Your task to perform on an android device: turn on the 24-hour format for clock Image 0: 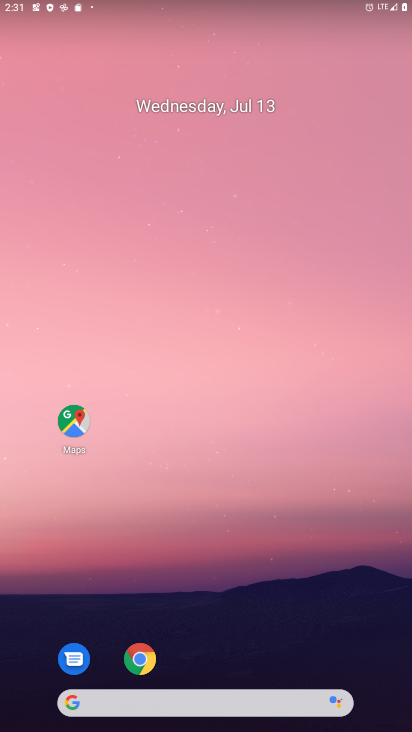
Step 0: click (229, 263)
Your task to perform on an android device: turn on the 24-hour format for clock Image 1: 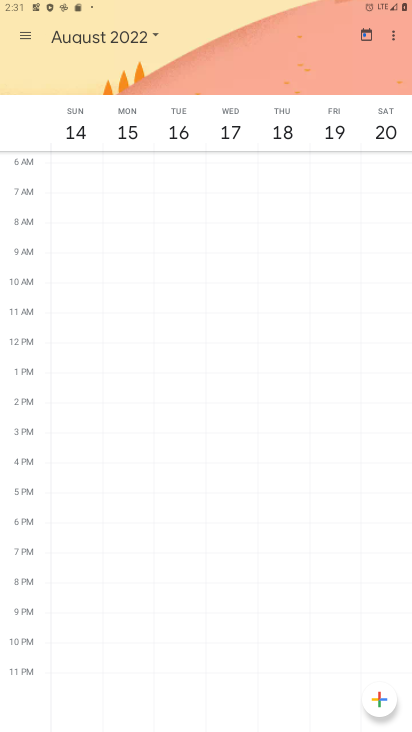
Step 1: drag from (356, 717) to (358, 349)
Your task to perform on an android device: turn on the 24-hour format for clock Image 2: 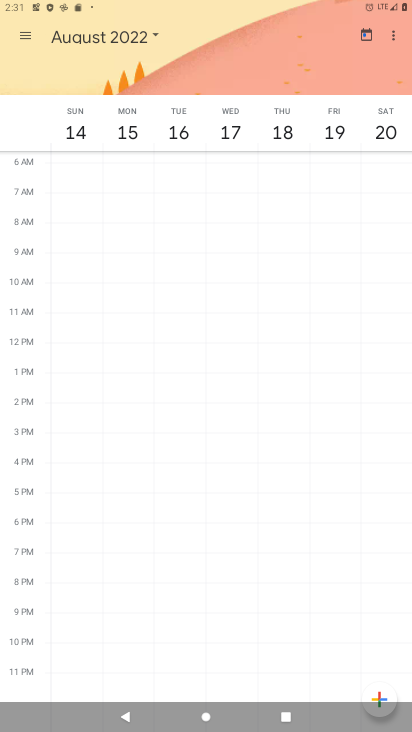
Step 2: press home button
Your task to perform on an android device: turn on the 24-hour format for clock Image 3: 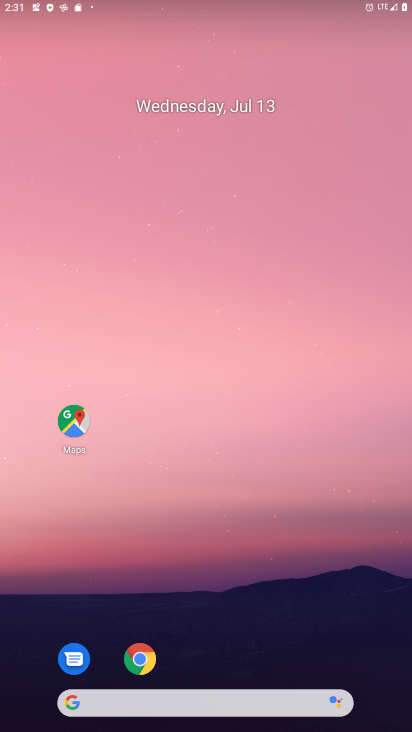
Step 3: drag from (245, 726) to (244, 214)
Your task to perform on an android device: turn on the 24-hour format for clock Image 4: 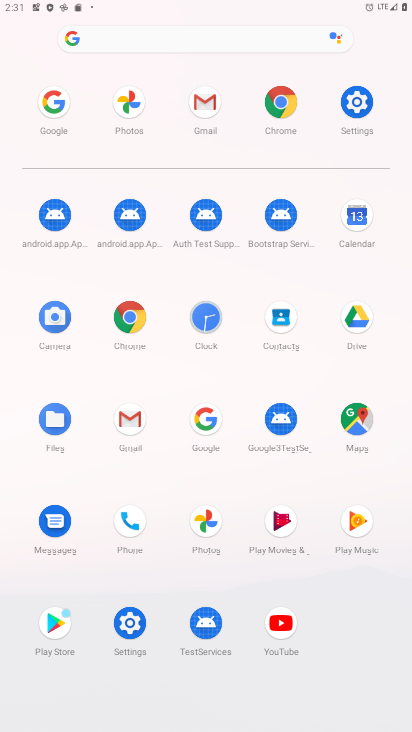
Step 4: click (203, 320)
Your task to perform on an android device: turn on the 24-hour format for clock Image 5: 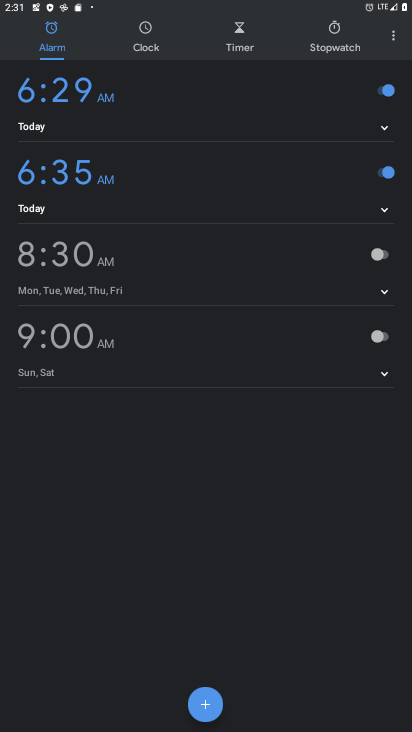
Step 5: click (394, 41)
Your task to perform on an android device: turn on the 24-hour format for clock Image 6: 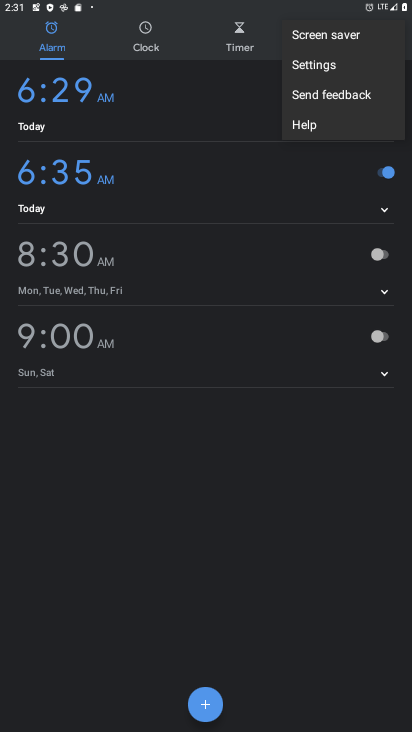
Step 6: click (322, 72)
Your task to perform on an android device: turn on the 24-hour format for clock Image 7: 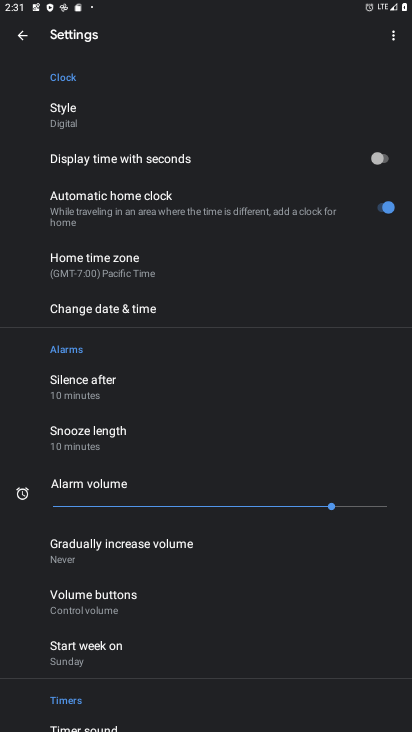
Step 7: click (110, 308)
Your task to perform on an android device: turn on the 24-hour format for clock Image 8: 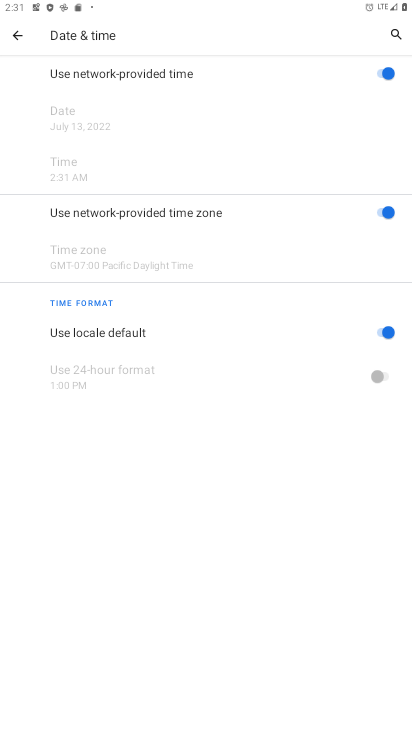
Step 8: click (386, 337)
Your task to perform on an android device: turn on the 24-hour format for clock Image 9: 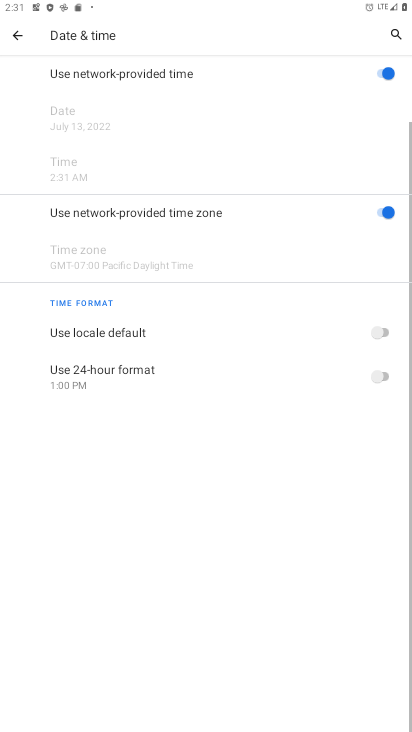
Step 9: click (388, 376)
Your task to perform on an android device: turn on the 24-hour format for clock Image 10: 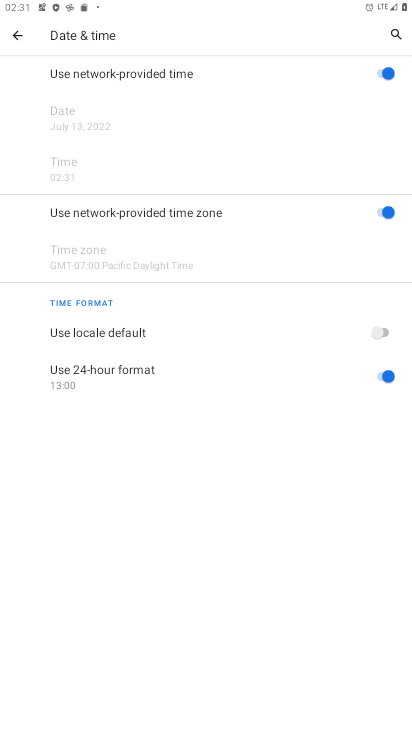
Step 10: task complete